Your task to perform on an android device: When is my next appointment? Image 0: 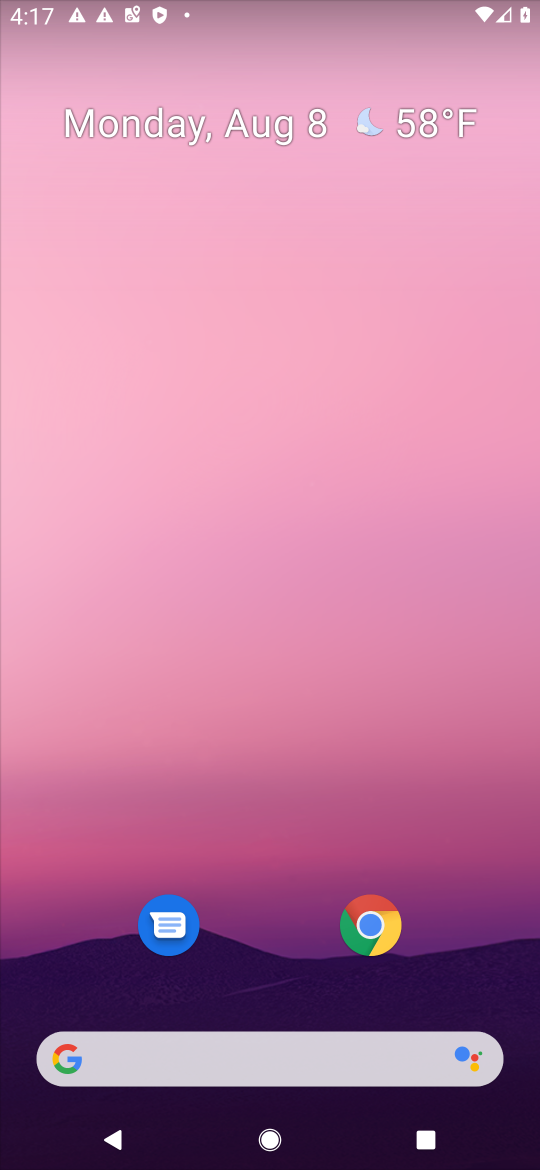
Step 0: drag from (310, 977) to (181, 32)
Your task to perform on an android device: When is my next appointment? Image 1: 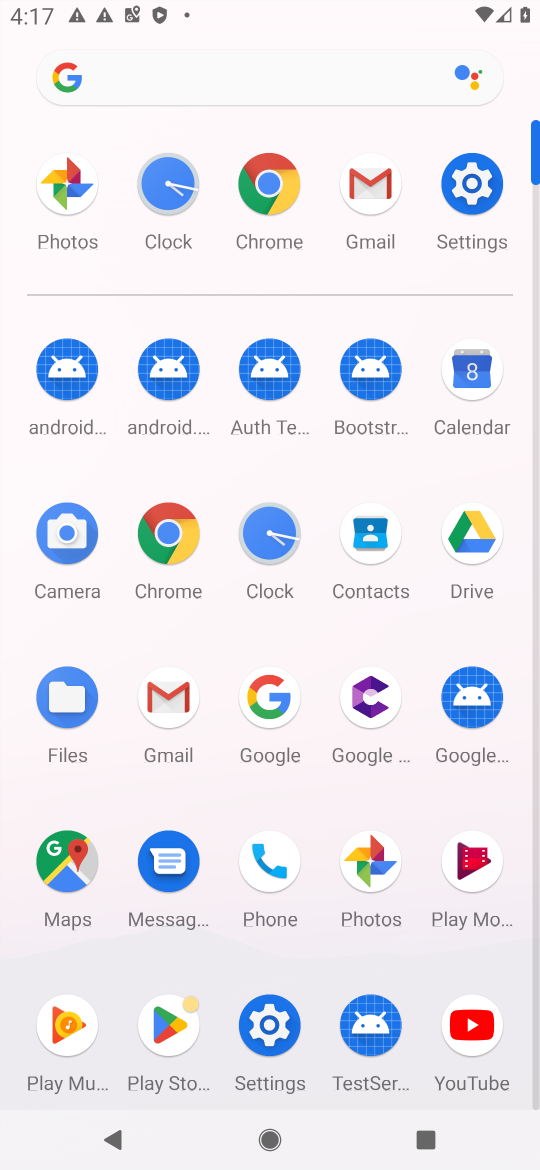
Step 1: click (461, 382)
Your task to perform on an android device: When is my next appointment? Image 2: 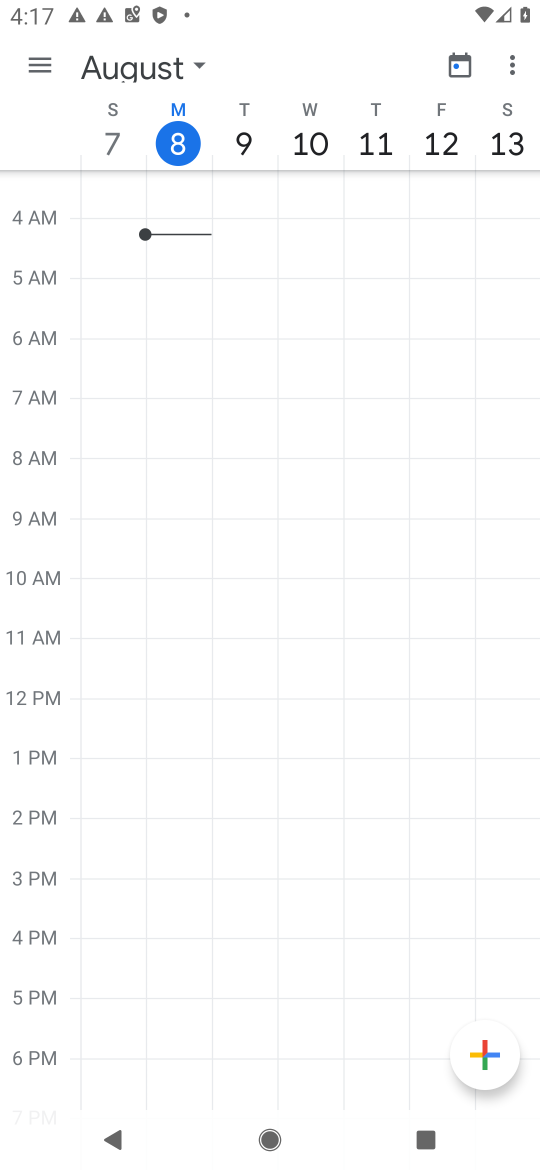
Step 2: click (241, 131)
Your task to perform on an android device: When is my next appointment? Image 3: 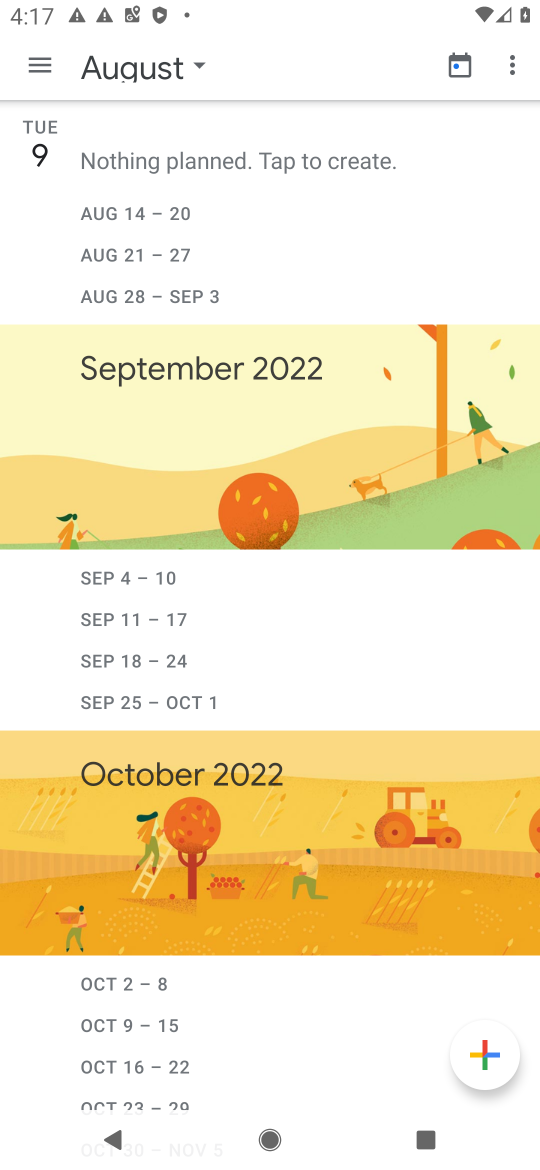
Step 3: task complete